Your task to perform on an android device: Is it going to rain this weekend? Image 0: 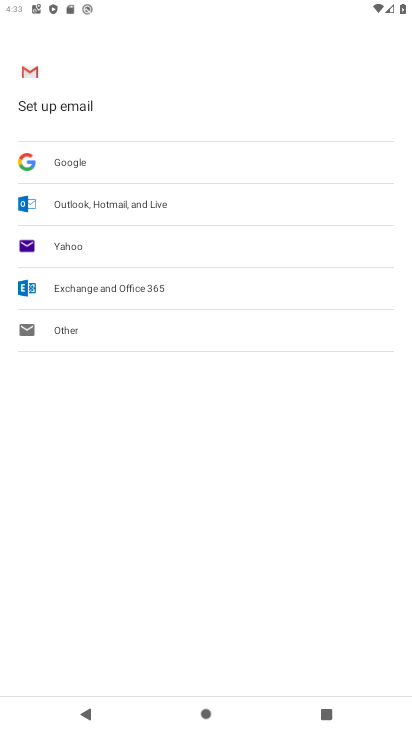
Step 0: press home button
Your task to perform on an android device: Is it going to rain this weekend? Image 1: 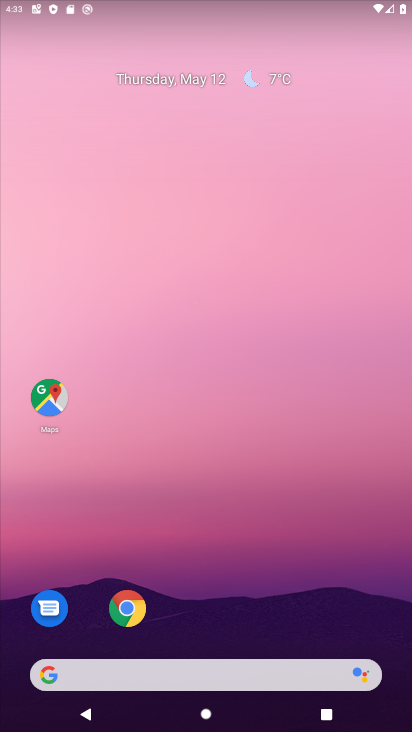
Step 1: click (295, 78)
Your task to perform on an android device: Is it going to rain this weekend? Image 2: 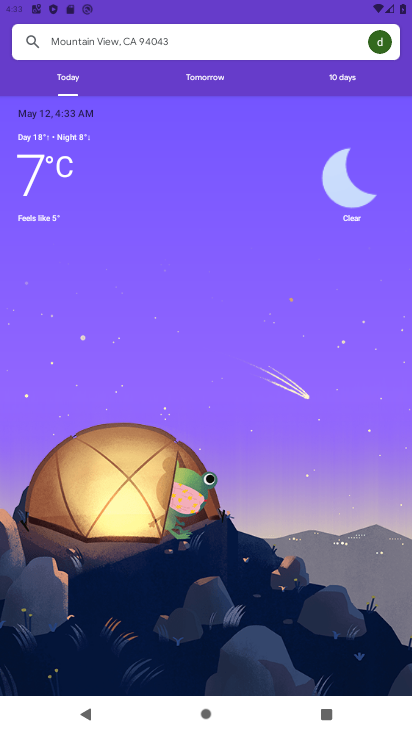
Step 2: click (354, 91)
Your task to perform on an android device: Is it going to rain this weekend? Image 3: 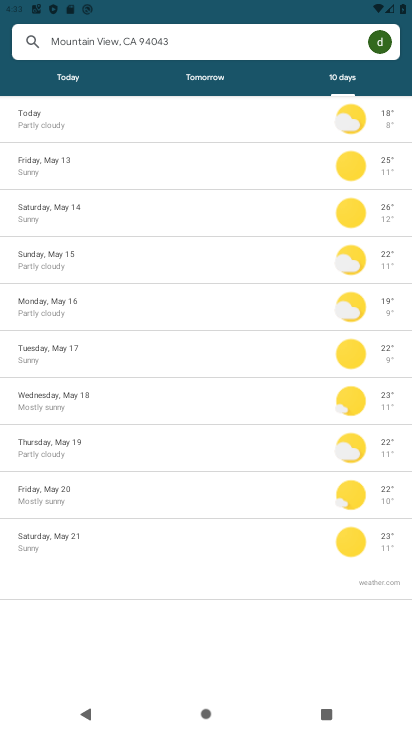
Step 3: task complete